Your task to perform on an android device: uninstall "DuckDuckGo Privacy Browser" Image 0: 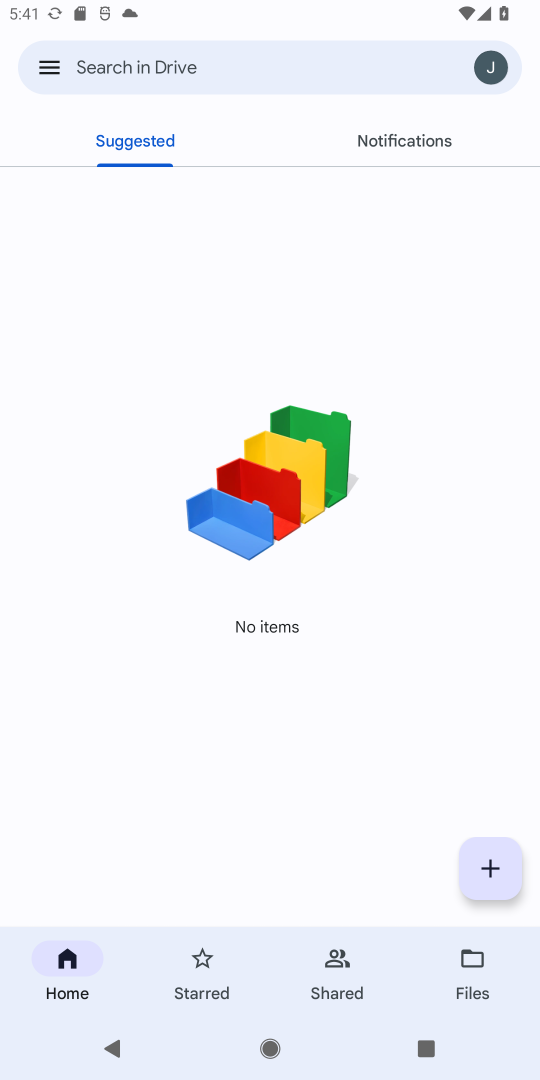
Step 0: press home button
Your task to perform on an android device: uninstall "DuckDuckGo Privacy Browser" Image 1: 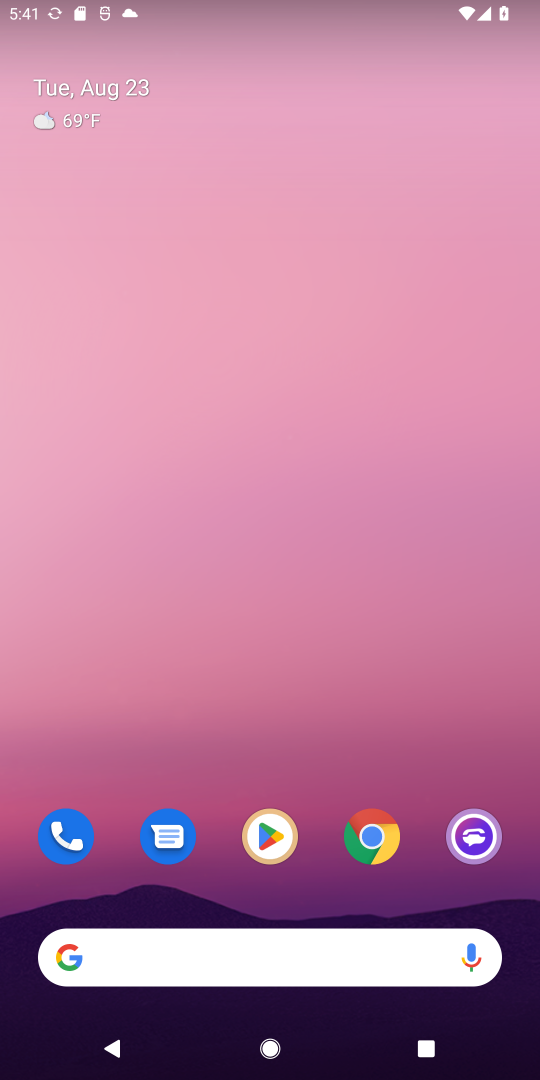
Step 1: click (268, 832)
Your task to perform on an android device: uninstall "DuckDuckGo Privacy Browser" Image 2: 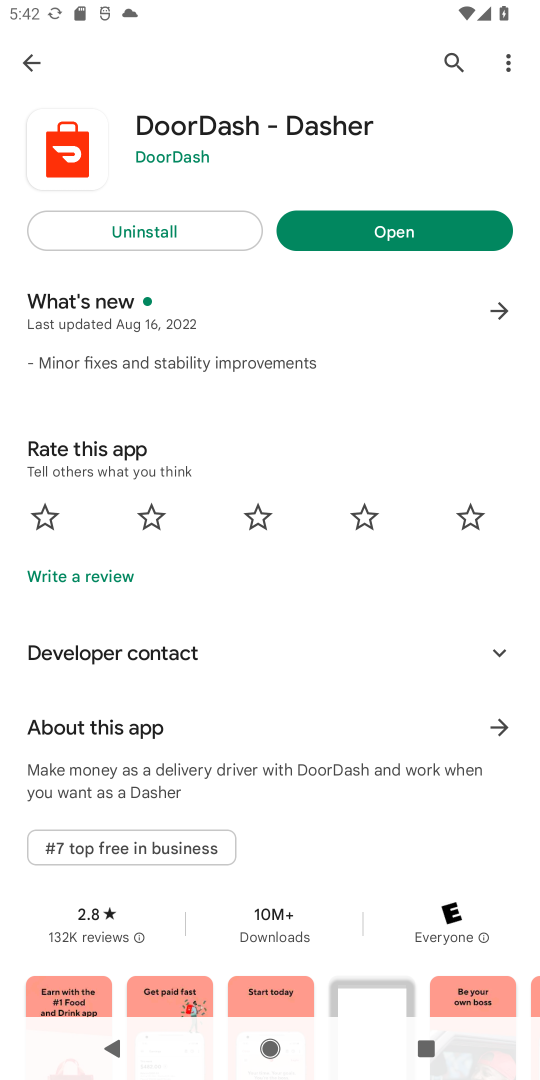
Step 2: click (455, 57)
Your task to perform on an android device: uninstall "DuckDuckGo Privacy Browser" Image 3: 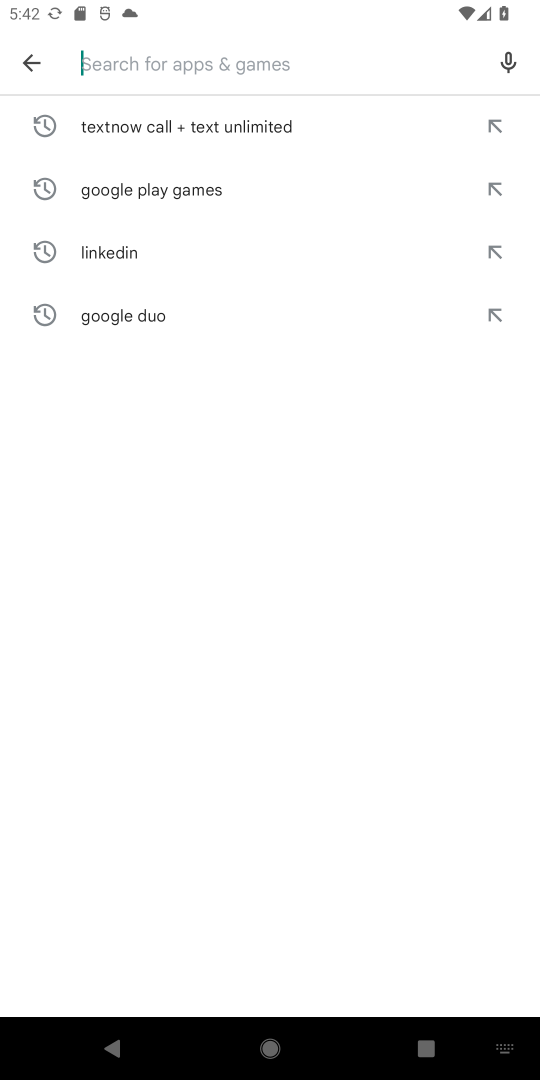
Step 3: type "DuckDuckGo Privacy Browser"
Your task to perform on an android device: uninstall "DuckDuckGo Privacy Browser" Image 4: 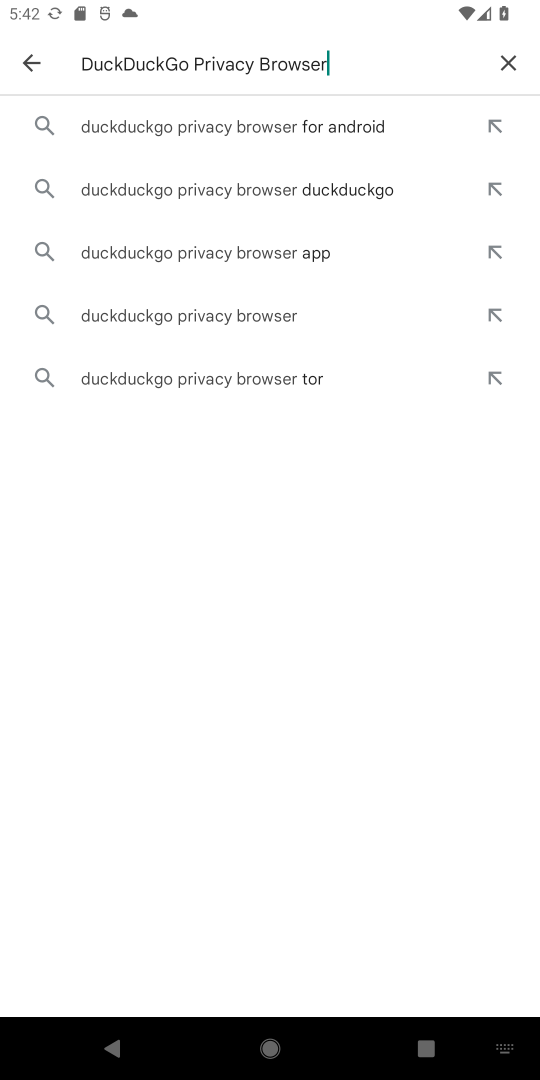
Step 4: click (161, 116)
Your task to perform on an android device: uninstall "DuckDuckGo Privacy Browser" Image 5: 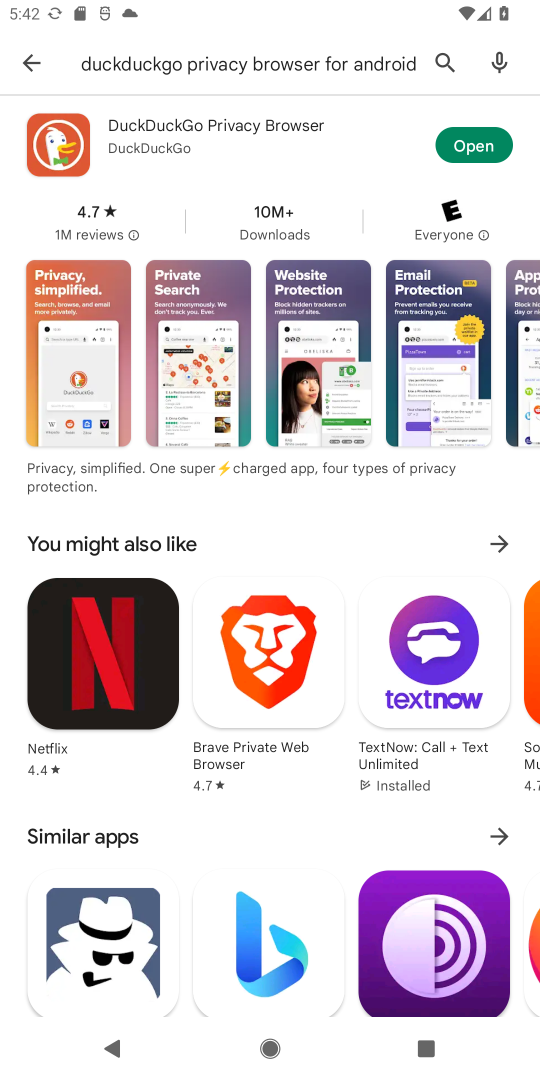
Step 5: click (203, 129)
Your task to perform on an android device: uninstall "DuckDuckGo Privacy Browser" Image 6: 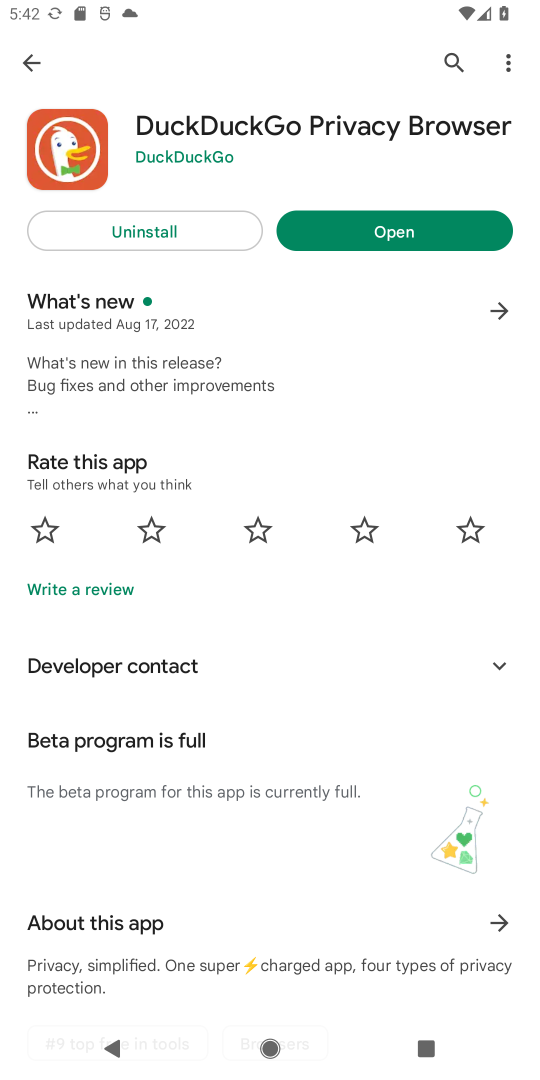
Step 6: click (138, 236)
Your task to perform on an android device: uninstall "DuckDuckGo Privacy Browser" Image 7: 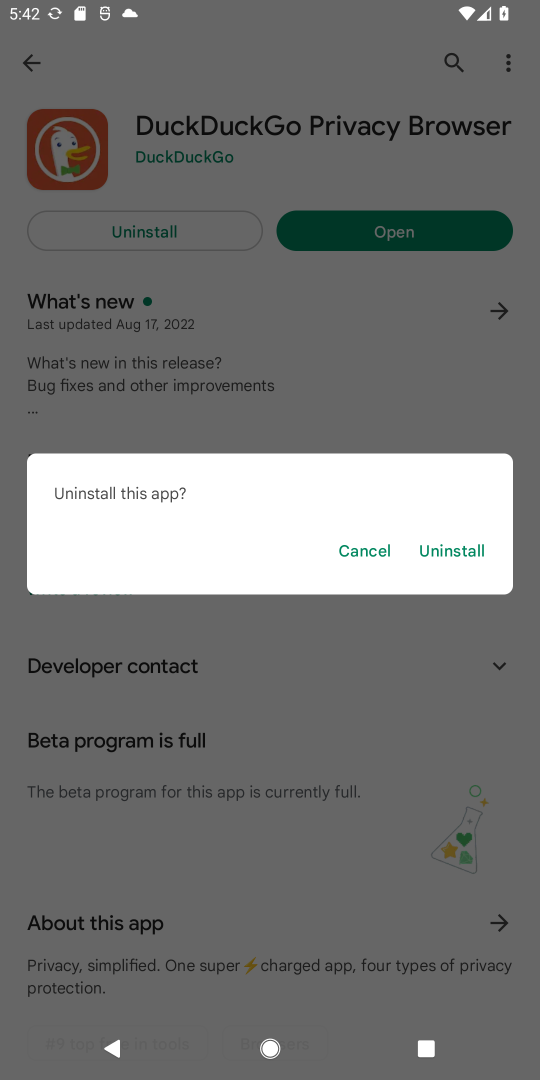
Step 7: click (461, 549)
Your task to perform on an android device: uninstall "DuckDuckGo Privacy Browser" Image 8: 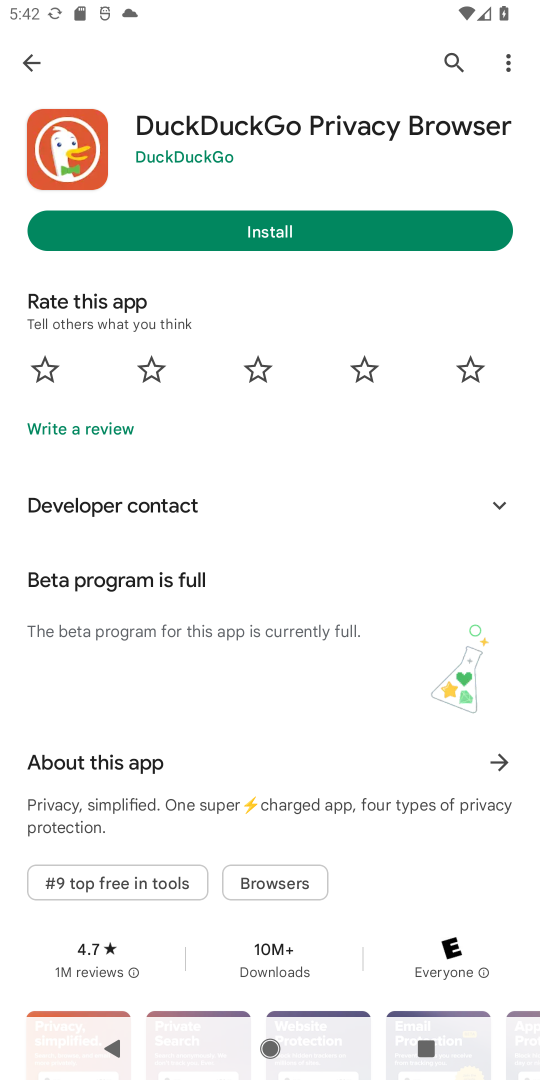
Step 8: task complete